Your task to perform on an android device: Clear the cart on target.com. Search for lenovo thinkpad on target.com, select the first entry, add it to the cart, then select checkout. Image 0: 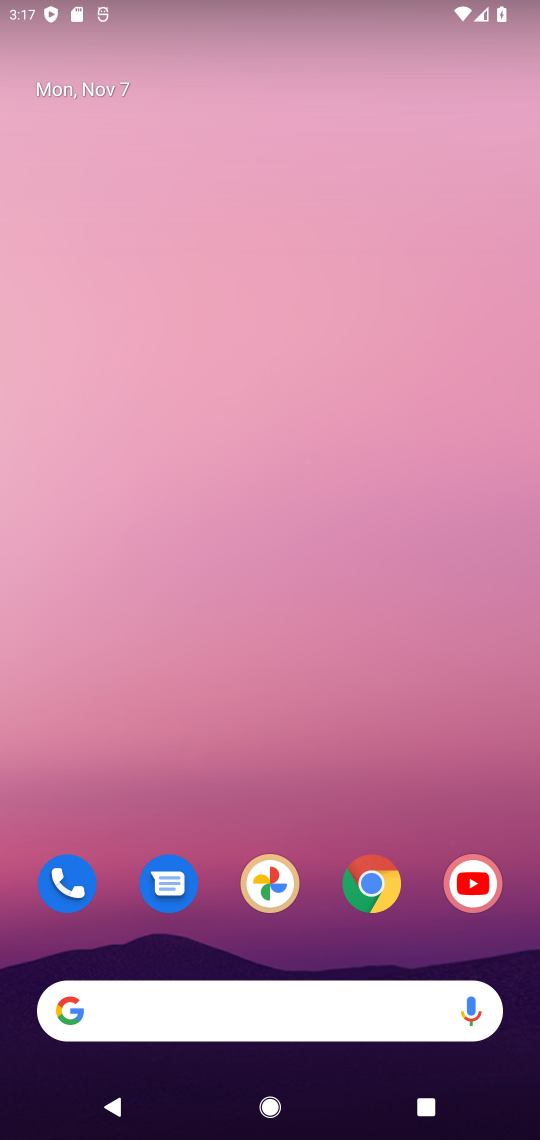
Step 0: click (379, 881)
Your task to perform on an android device: Clear the cart on target.com. Search for lenovo thinkpad on target.com, select the first entry, add it to the cart, then select checkout. Image 1: 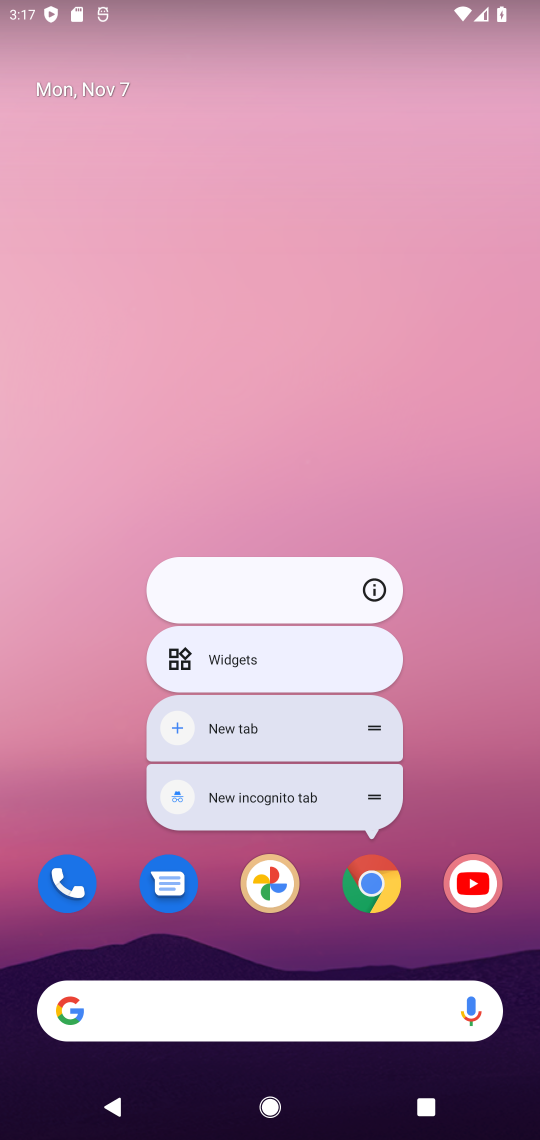
Step 1: click (379, 881)
Your task to perform on an android device: Clear the cart on target.com. Search for lenovo thinkpad on target.com, select the first entry, add it to the cart, then select checkout. Image 2: 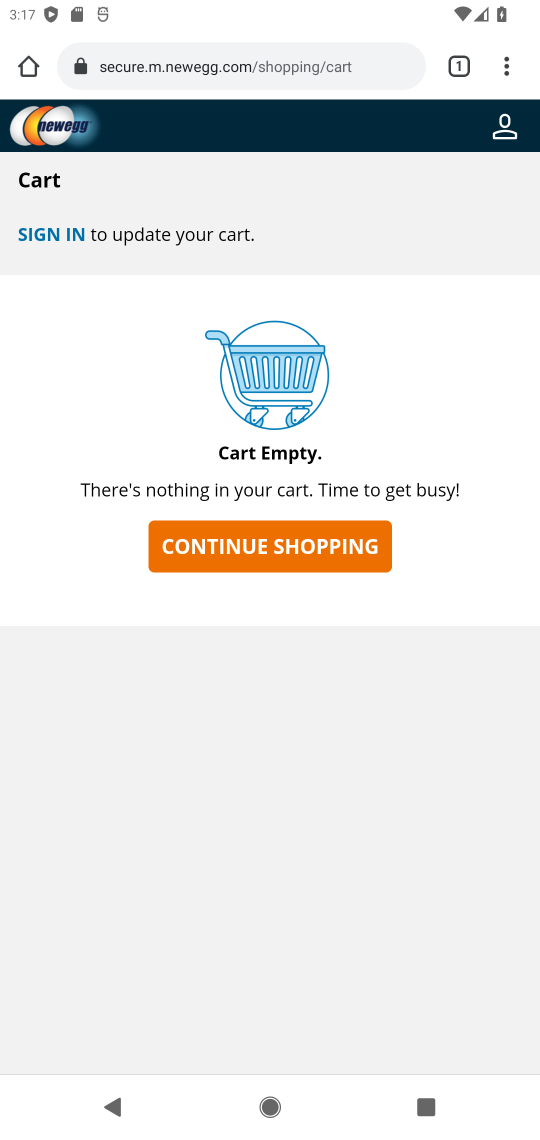
Step 2: click (308, 65)
Your task to perform on an android device: Clear the cart on target.com. Search for lenovo thinkpad on target.com, select the first entry, add it to the cart, then select checkout. Image 3: 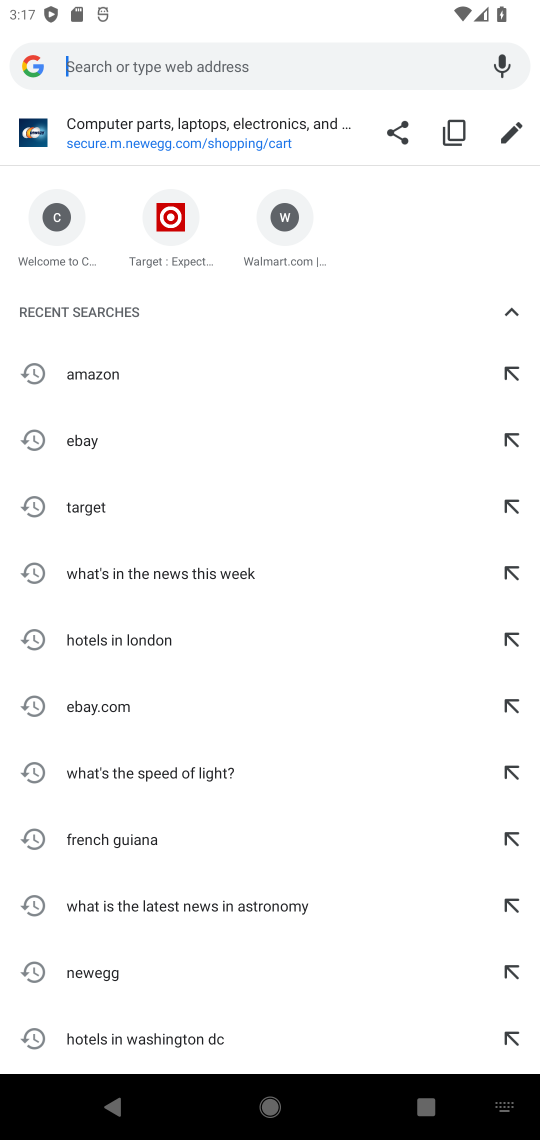
Step 3: type "target.com"
Your task to perform on an android device: Clear the cart on target.com. Search for lenovo thinkpad on target.com, select the first entry, add it to the cart, then select checkout. Image 4: 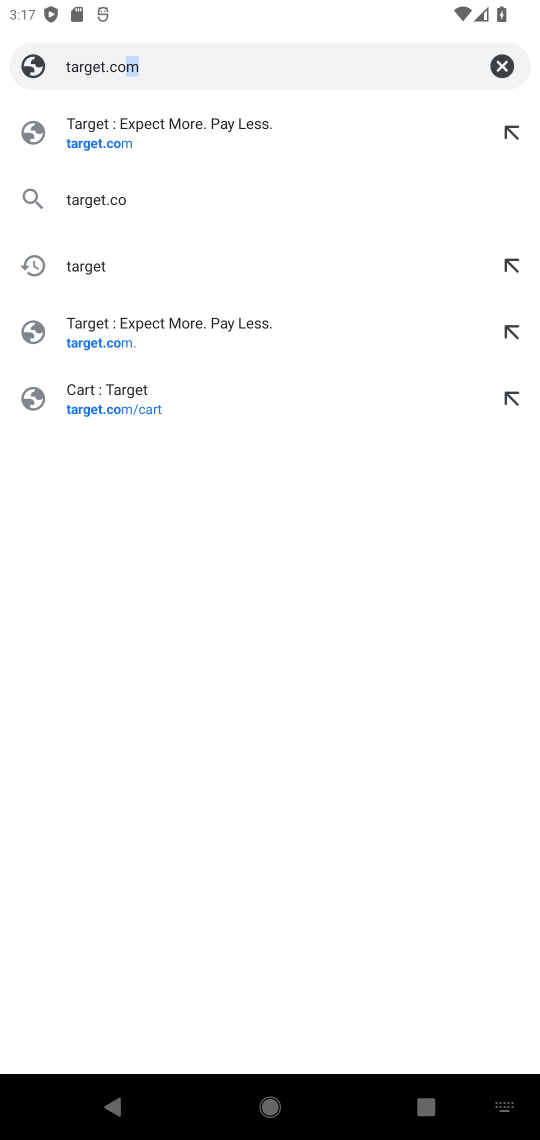
Step 4: press enter
Your task to perform on an android device: Clear the cart on target.com. Search for lenovo thinkpad on target.com, select the first entry, add it to the cart, then select checkout. Image 5: 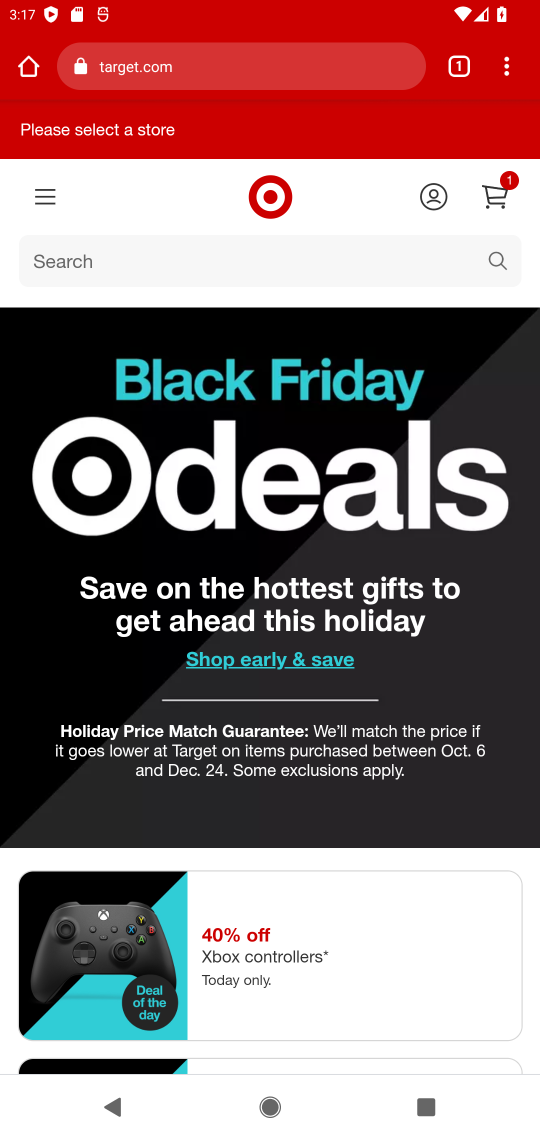
Step 5: click (160, 265)
Your task to perform on an android device: Clear the cart on target.com. Search for lenovo thinkpad on target.com, select the first entry, add it to the cart, then select checkout. Image 6: 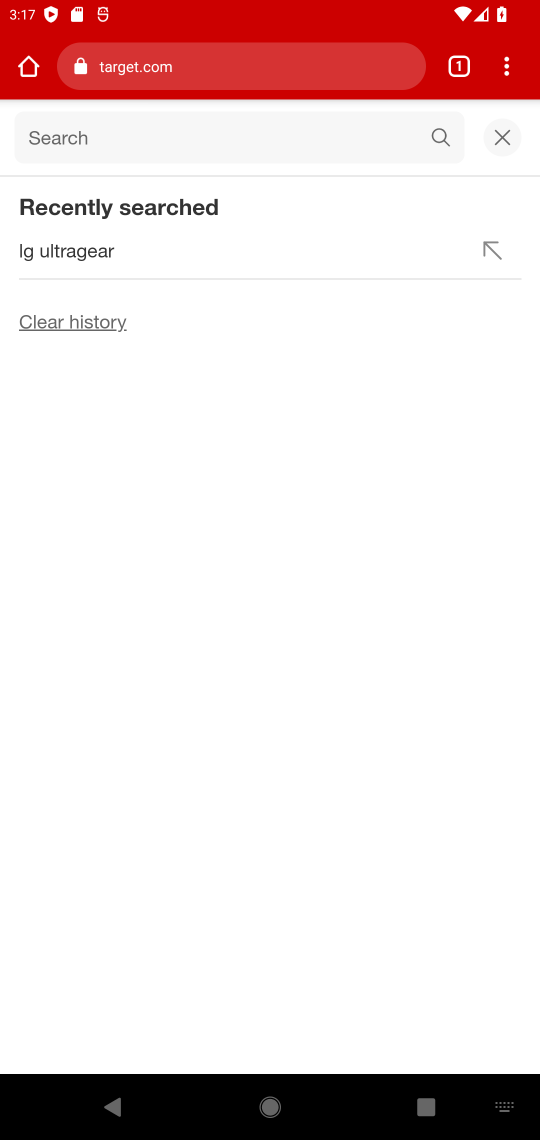
Step 6: type "lenovo thinkpad"
Your task to perform on an android device: Clear the cart on target.com. Search for lenovo thinkpad on target.com, select the first entry, add it to the cart, then select checkout. Image 7: 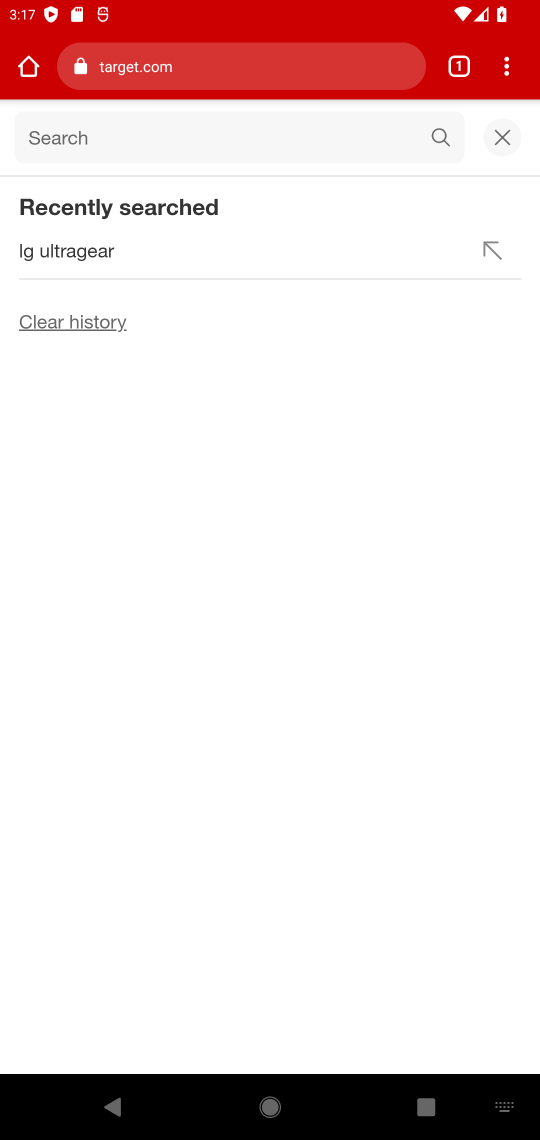
Step 7: press enter
Your task to perform on an android device: Clear the cart on target.com. Search for lenovo thinkpad on target.com, select the first entry, add it to the cart, then select checkout. Image 8: 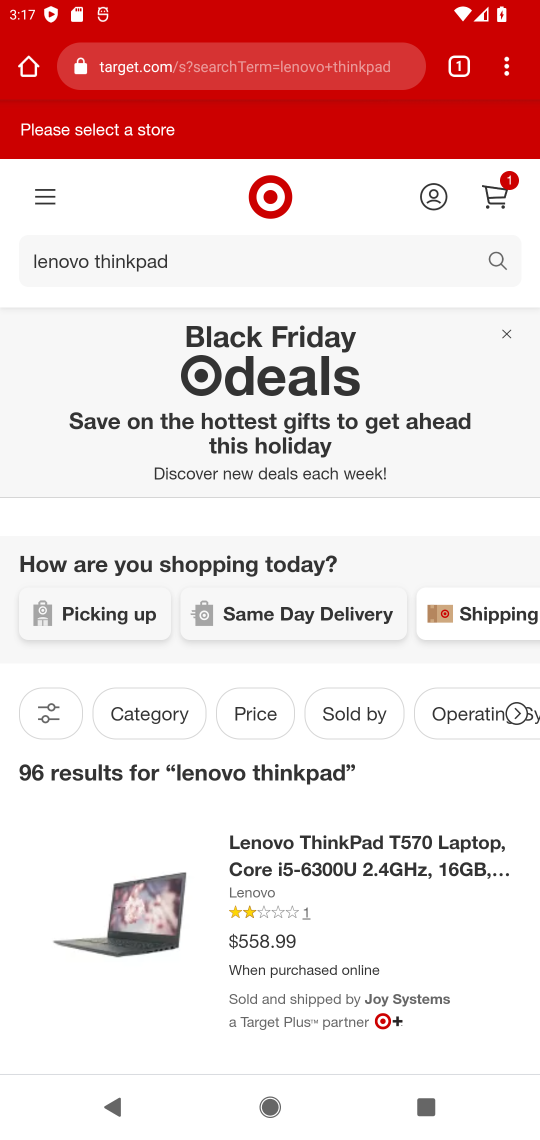
Step 8: drag from (354, 920) to (406, 585)
Your task to perform on an android device: Clear the cart on target.com. Search for lenovo thinkpad on target.com, select the first entry, add it to the cart, then select checkout. Image 9: 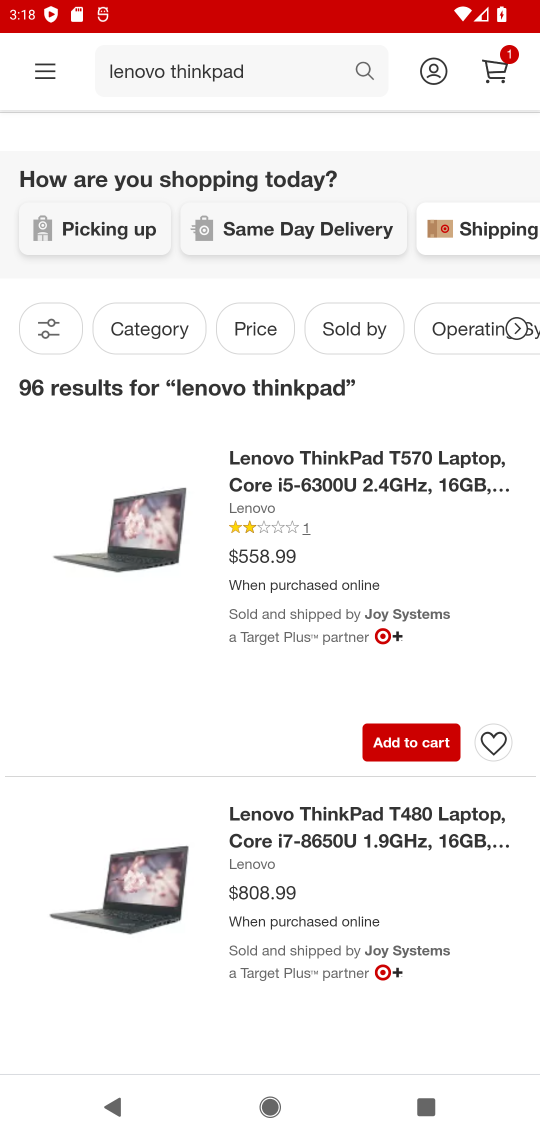
Step 9: click (418, 750)
Your task to perform on an android device: Clear the cart on target.com. Search for lenovo thinkpad on target.com, select the first entry, add it to the cart, then select checkout. Image 10: 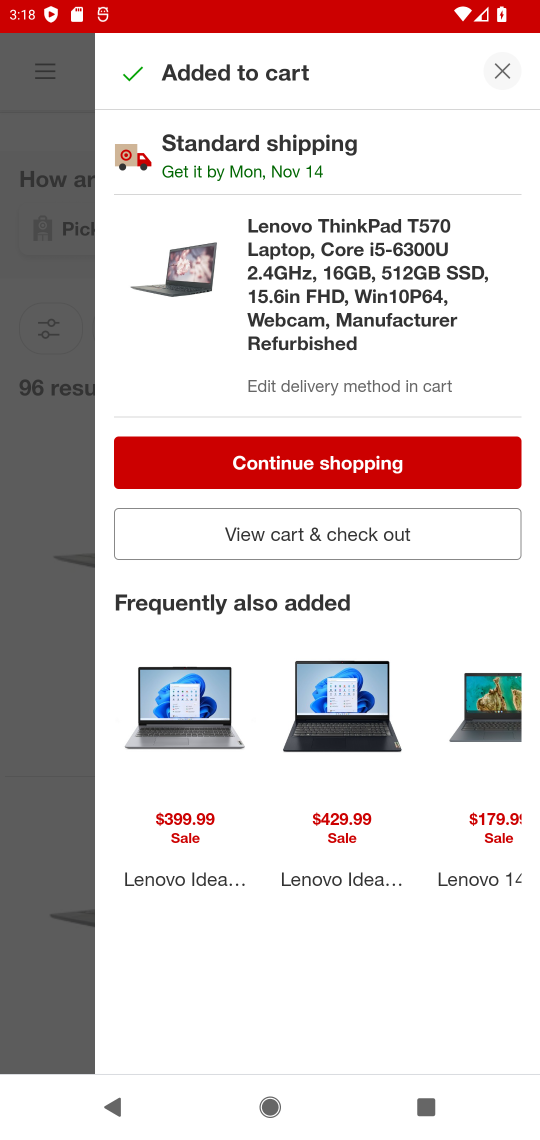
Step 10: click (303, 525)
Your task to perform on an android device: Clear the cart on target.com. Search for lenovo thinkpad on target.com, select the first entry, add it to the cart, then select checkout. Image 11: 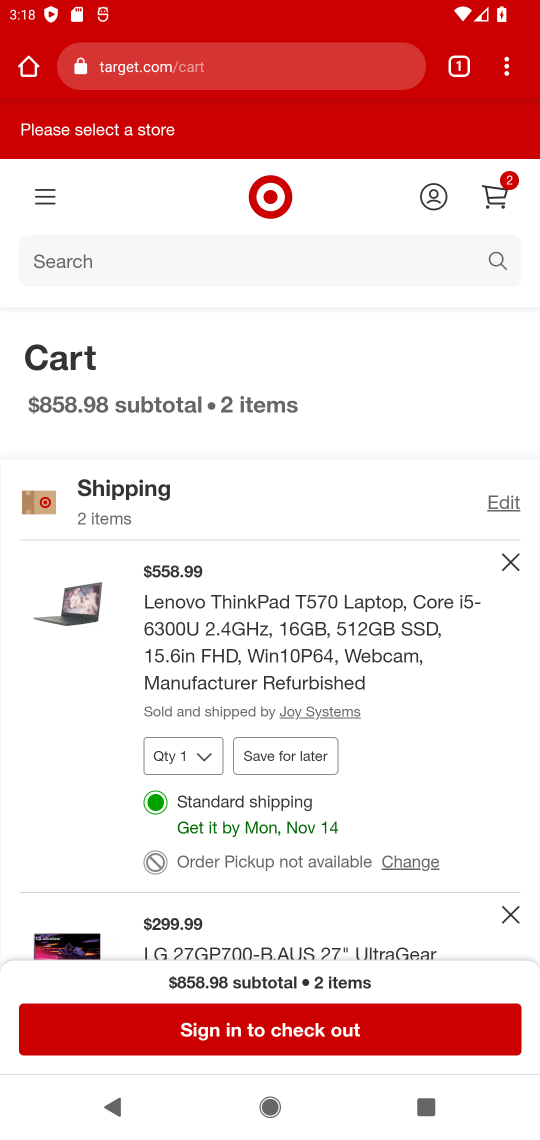
Step 11: click (308, 1038)
Your task to perform on an android device: Clear the cart on target.com. Search for lenovo thinkpad on target.com, select the first entry, add it to the cart, then select checkout. Image 12: 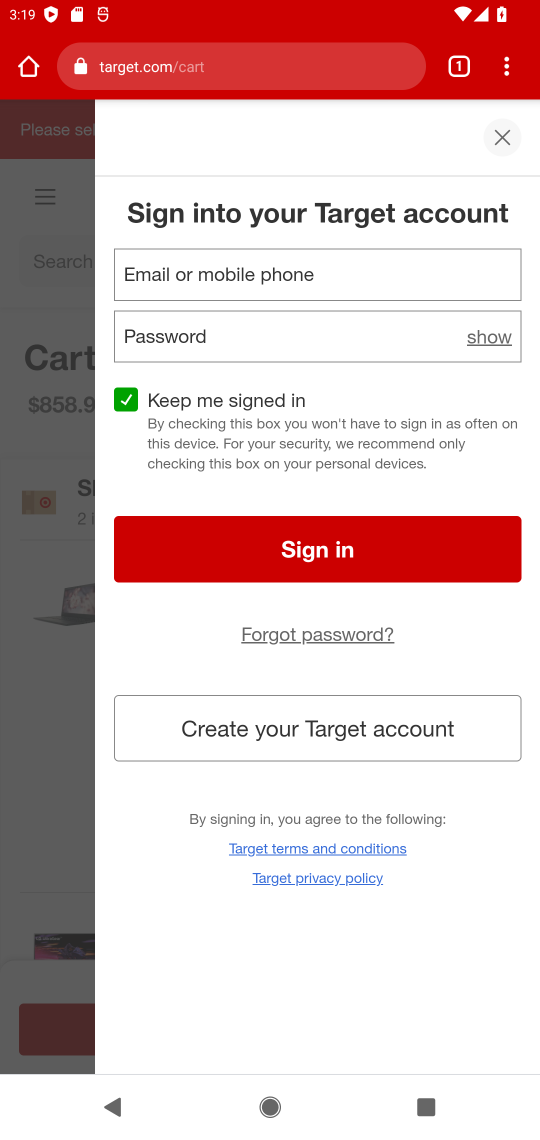
Step 12: task complete